Your task to perform on an android device: set the timer Image 0: 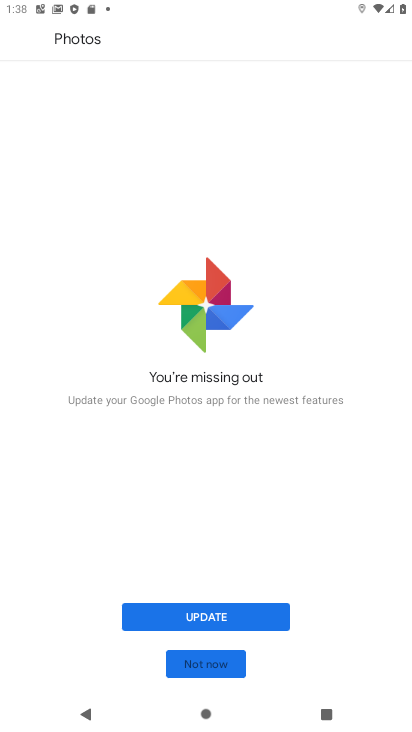
Step 0: press home button
Your task to perform on an android device: set the timer Image 1: 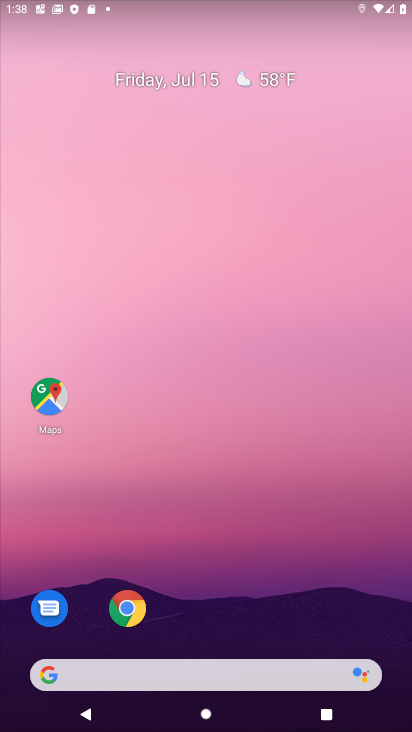
Step 1: drag from (306, 624) to (216, 106)
Your task to perform on an android device: set the timer Image 2: 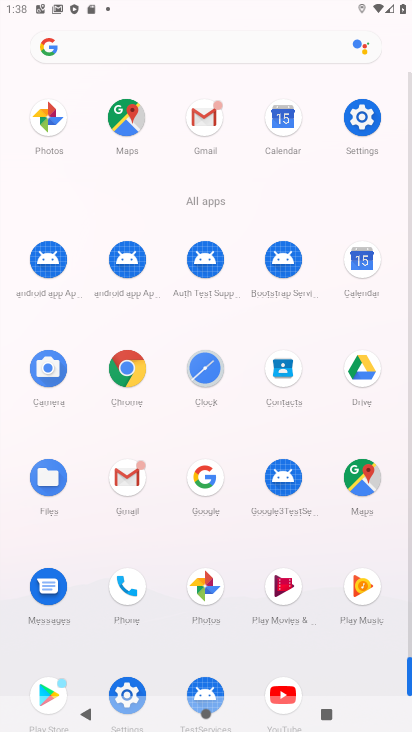
Step 2: click (211, 374)
Your task to perform on an android device: set the timer Image 3: 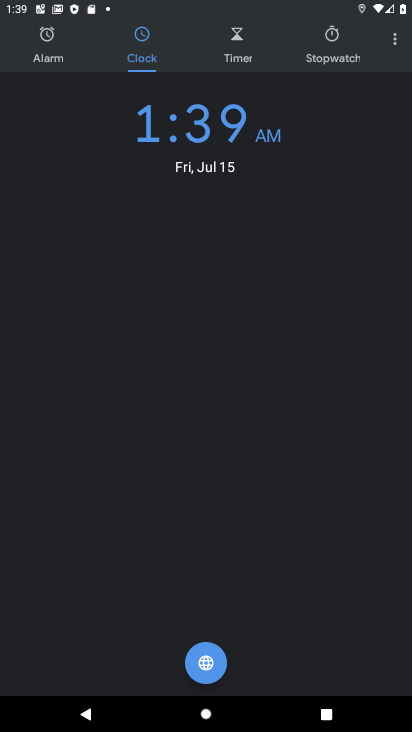
Step 3: click (238, 57)
Your task to perform on an android device: set the timer Image 4: 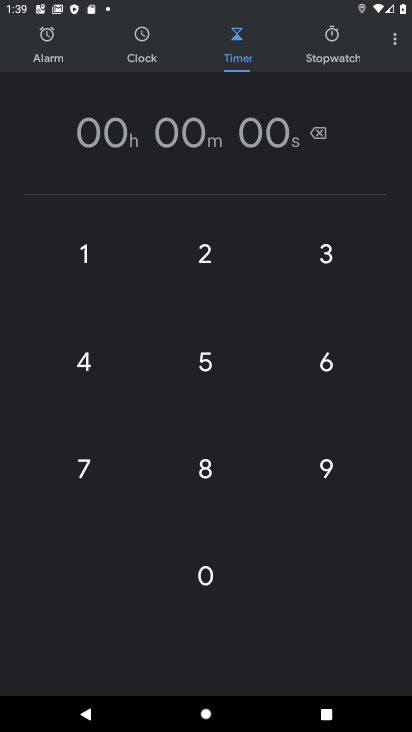
Step 4: click (197, 348)
Your task to perform on an android device: set the timer Image 5: 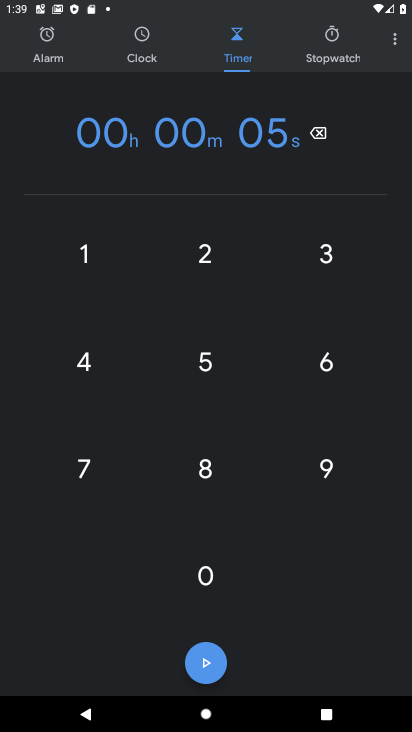
Step 5: click (68, 464)
Your task to perform on an android device: set the timer Image 6: 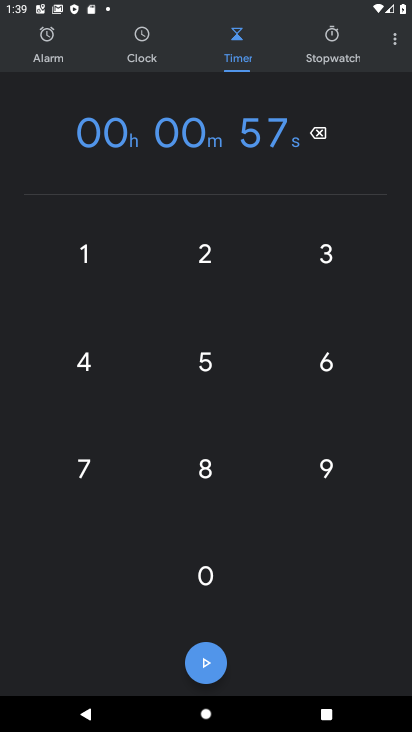
Step 6: click (216, 652)
Your task to perform on an android device: set the timer Image 7: 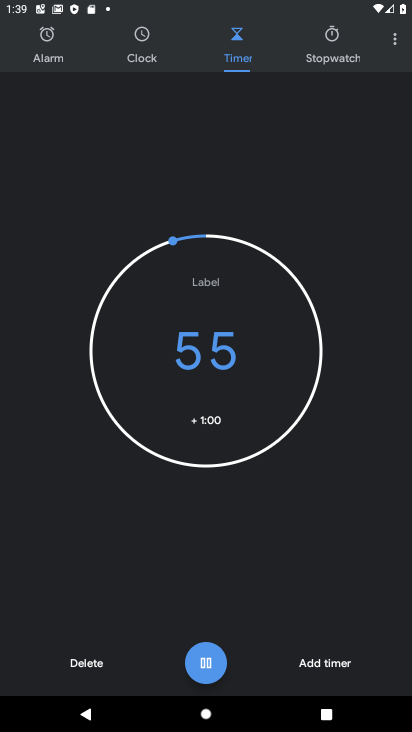
Step 7: task complete